Your task to perform on an android device: turn off smart reply in the gmail app Image 0: 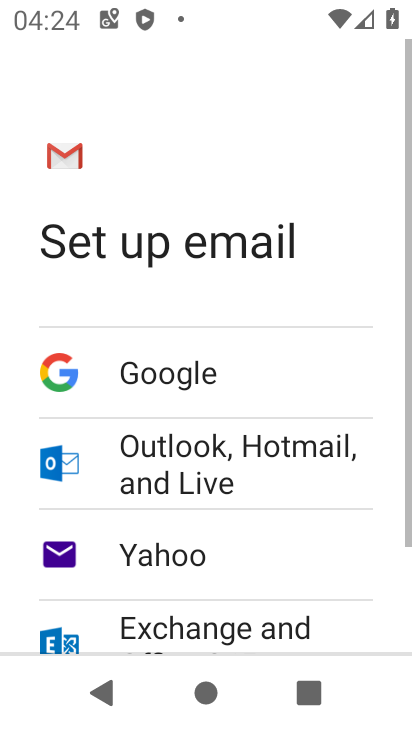
Step 0: press home button
Your task to perform on an android device: turn off smart reply in the gmail app Image 1: 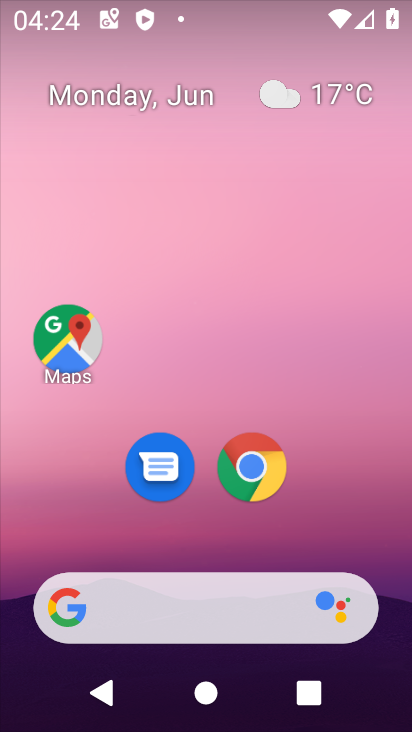
Step 1: drag from (237, 560) to (305, 10)
Your task to perform on an android device: turn off smart reply in the gmail app Image 2: 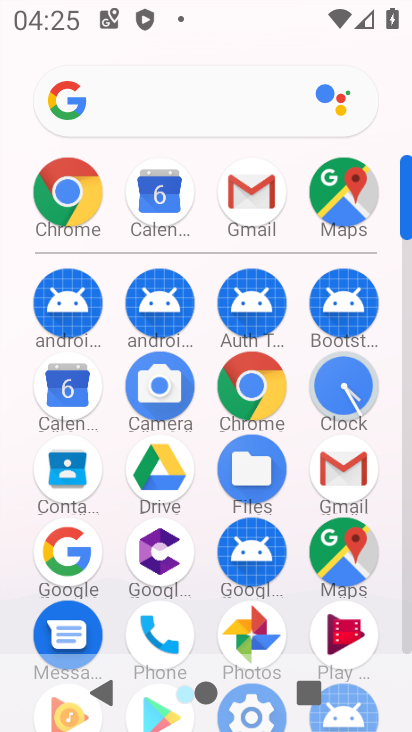
Step 2: click (361, 478)
Your task to perform on an android device: turn off smart reply in the gmail app Image 3: 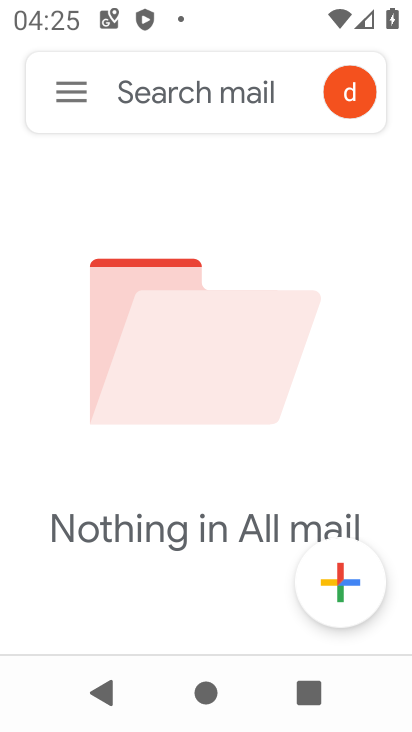
Step 3: click (68, 96)
Your task to perform on an android device: turn off smart reply in the gmail app Image 4: 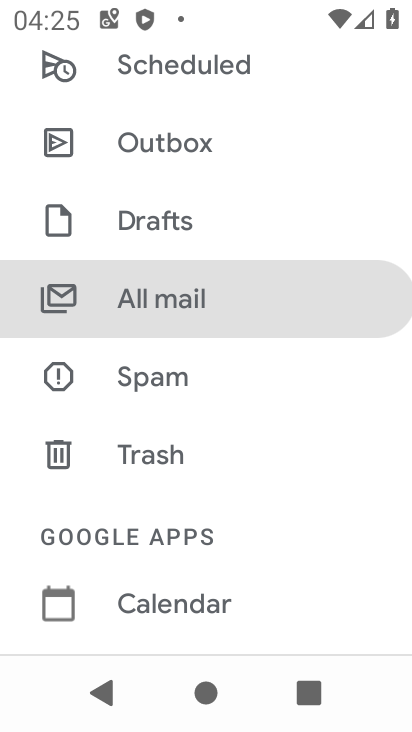
Step 4: drag from (204, 557) to (269, 108)
Your task to perform on an android device: turn off smart reply in the gmail app Image 5: 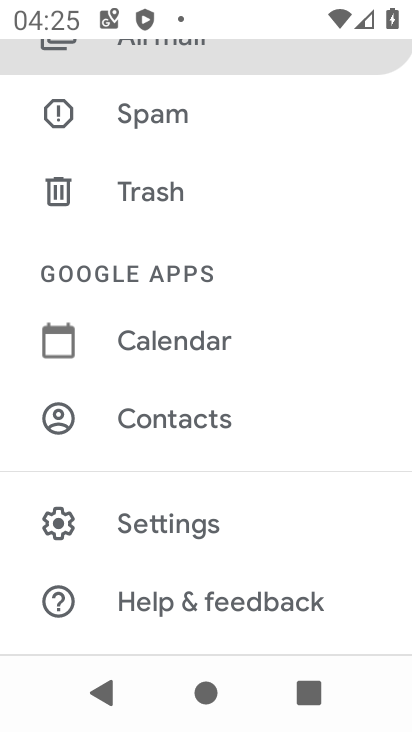
Step 5: click (146, 524)
Your task to perform on an android device: turn off smart reply in the gmail app Image 6: 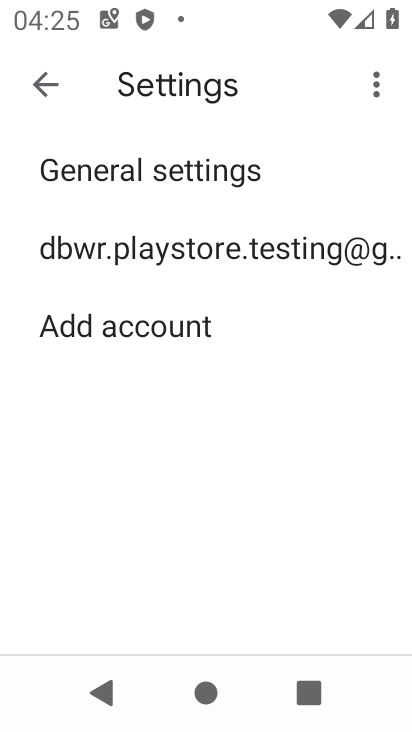
Step 6: click (140, 251)
Your task to perform on an android device: turn off smart reply in the gmail app Image 7: 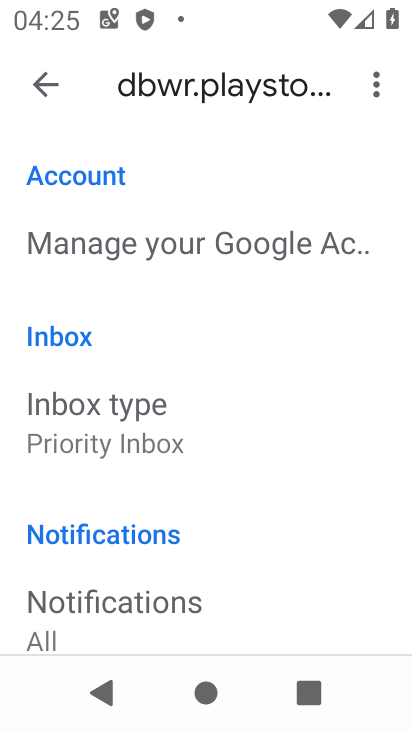
Step 7: drag from (200, 558) to (258, 182)
Your task to perform on an android device: turn off smart reply in the gmail app Image 8: 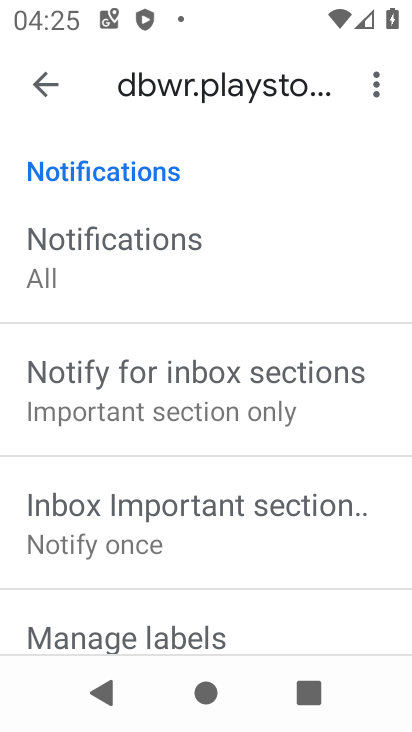
Step 8: drag from (262, 485) to (309, 241)
Your task to perform on an android device: turn off smart reply in the gmail app Image 9: 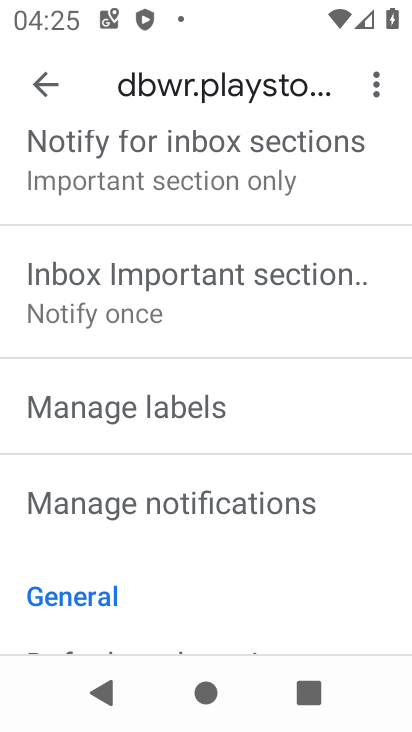
Step 9: drag from (257, 585) to (356, 110)
Your task to perform on an android device: turn off smart reply in the gmail app Image 10: 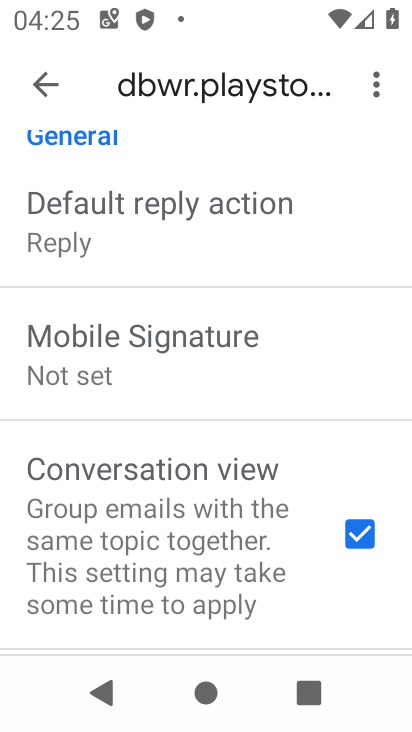
Step 10: drag from (236, 572) to (318, 92)
Your task to perform on an android device: turn off smart reply in the gmail app Image 11: 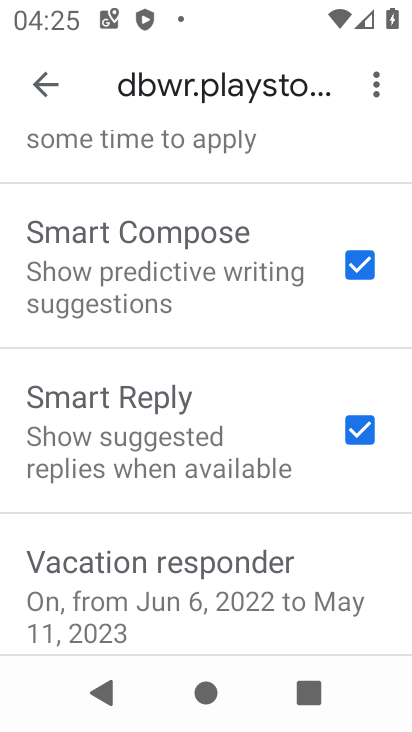
Step 11: click (344, 443)
Your task to perform on an android device: turn off smart reply in the gmail app Image 12: 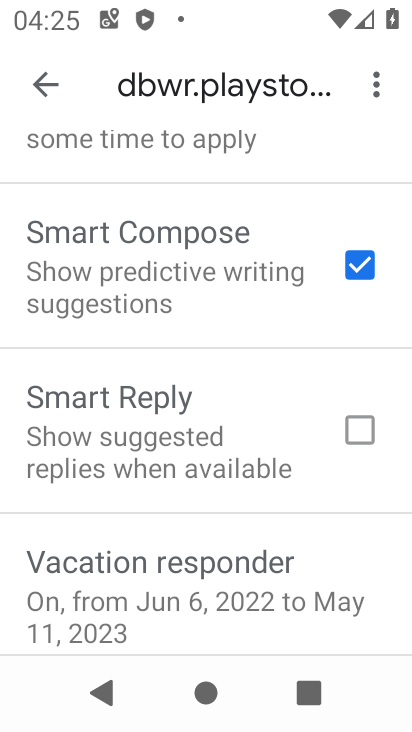
Step 12: task complete